Your task to perform on an android device: check the backup settings in the google photos Image 0: 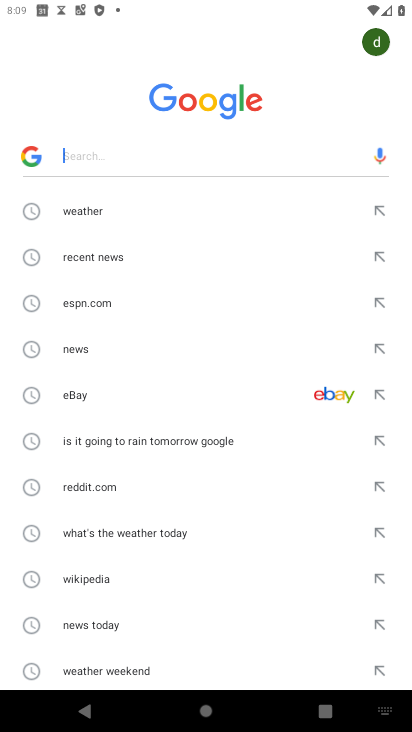
Step 0: press home button
Your task to perform on an android device: check the backup settings in the google photos Image 1: 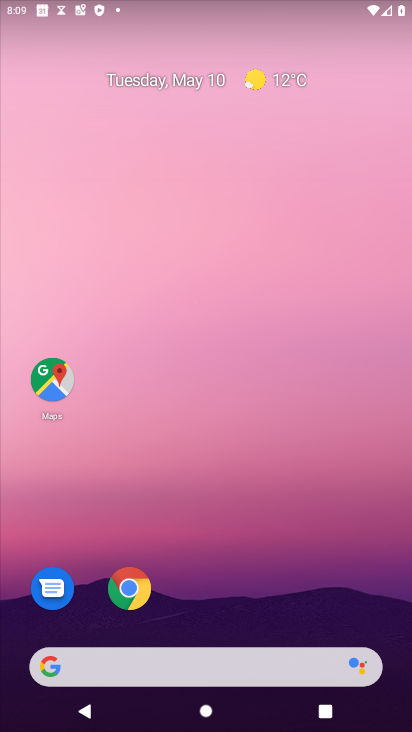
Step 1: drag from (185, 608) to (243, 60)
Your task to perform on an android device: check the backup settings in the google photos Image 2: 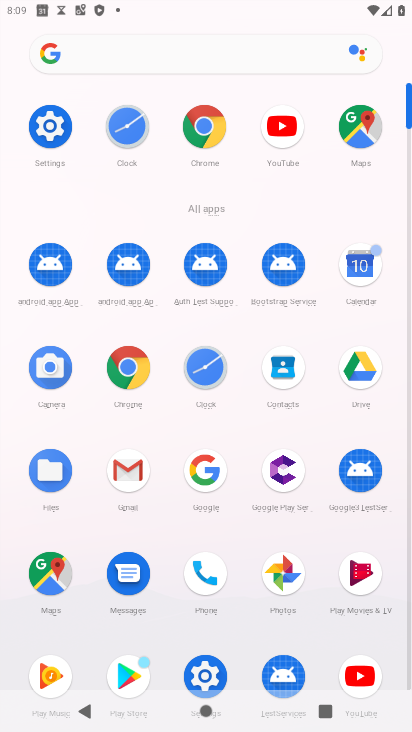
Step 2: click (294, 575)
Your task to perform on an android device: check the backup settings in the google photos Image 3: 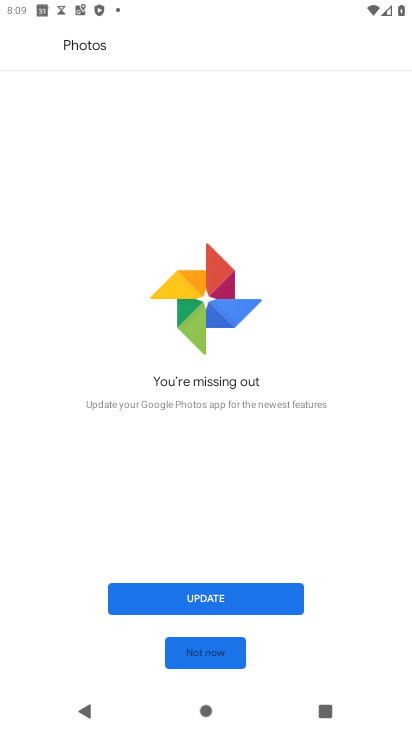
Step 3: click (189, 650)
Your task to perform on an android device: check the backup settings in the google photos Image 4: 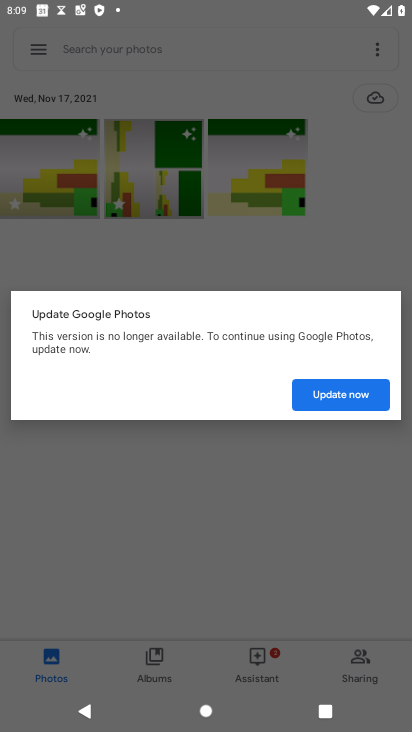
Step 4: click (309, 381)
Your task to perform on an android device: check the backup settings in the google photos Image 5: 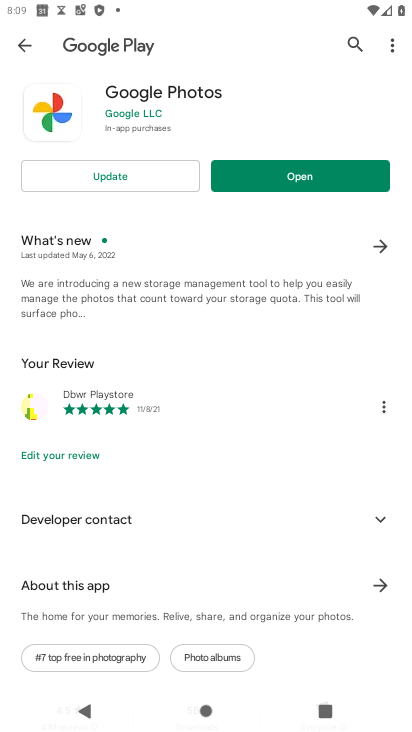
Step 5: click (277, 176)
Your task to perform on an android device: check the backup settings in the google photos Image 6: 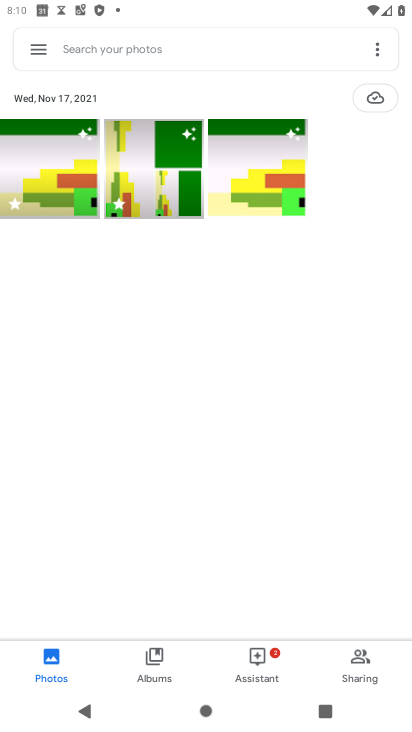
Step 6: click (39, 48)
Your task to perform on an android device: check the backup settings in the google photos Image 7: 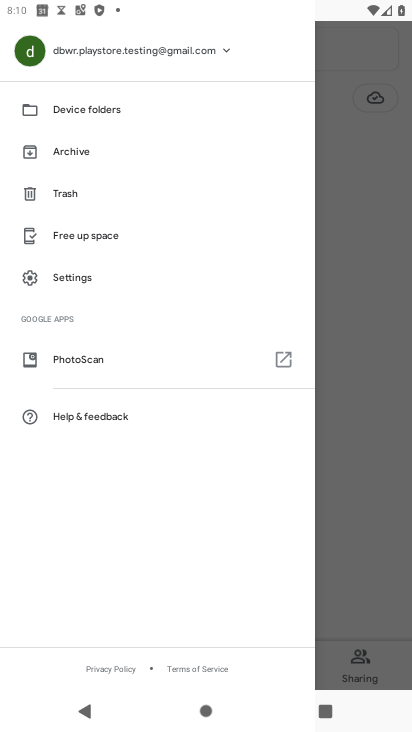
Step 7: click (126, 287)
Your task to perform on an android device: check the backup settings in the google photos Image 8: 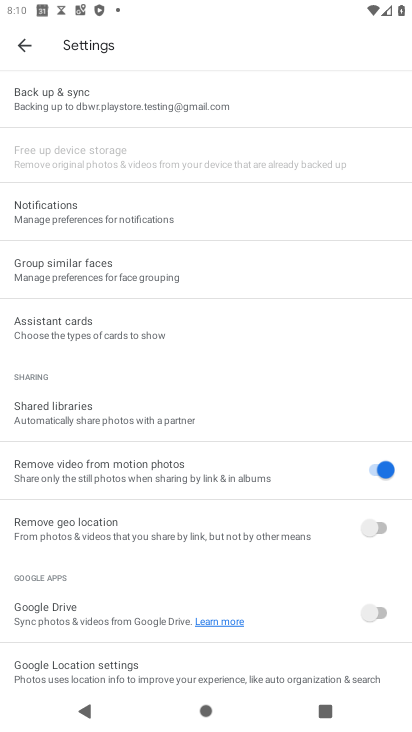
Step 8: click (146, 99)
Your task to perform on an android device: check the backup settings in the google photos Image 9: 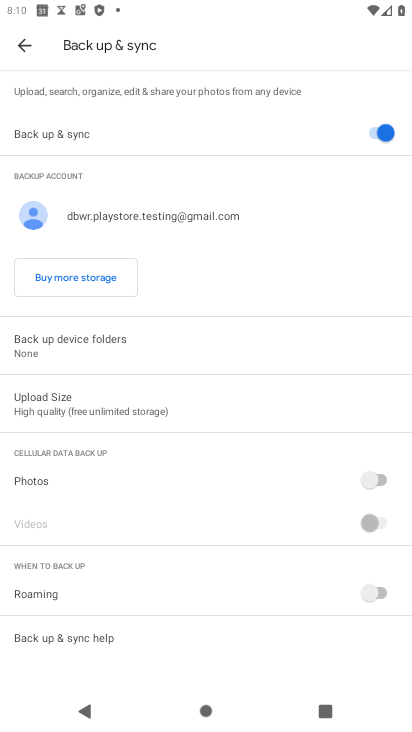
Step 9: task complete